Your task to perform on an android device: Search for pizza restaurants on Maps Image 0: 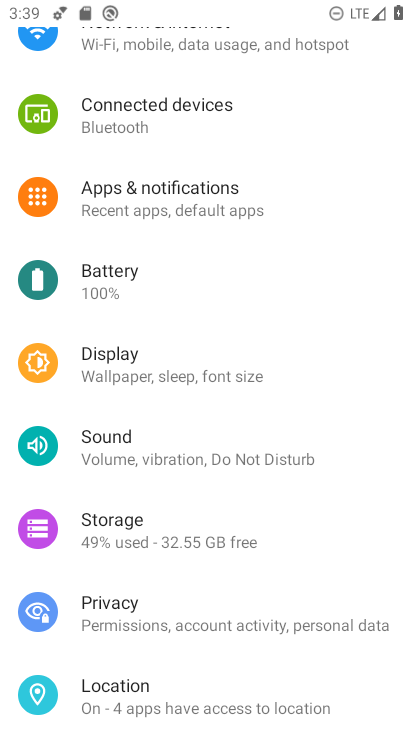
Step 0: press home button
Your task to perform on an android device: Search for pizza restaurants on Maps Image 1: 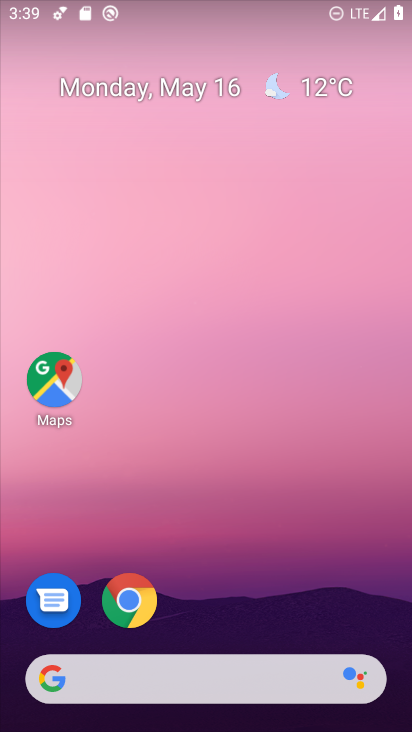
Step 1: click (60, 382)
Your task to perform on an android device: Search for pizza restaurants on Maps Image 2: 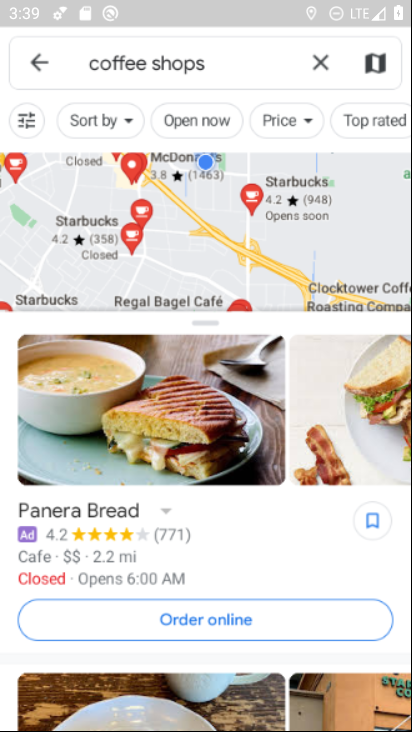
Step 2: click (261, 42)
Your task to perform on an android device: Search for pizza restaurants on Maps Image 3: 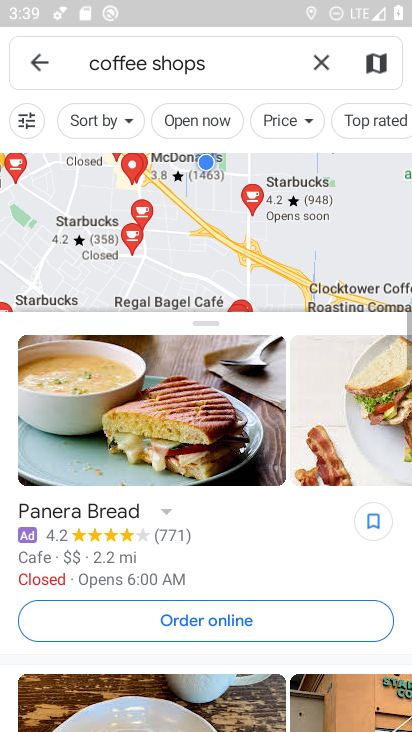
Step 3: click (327, 53)
Your task to perform on an android device: Search for pizza restaurants on Maps Image 4: 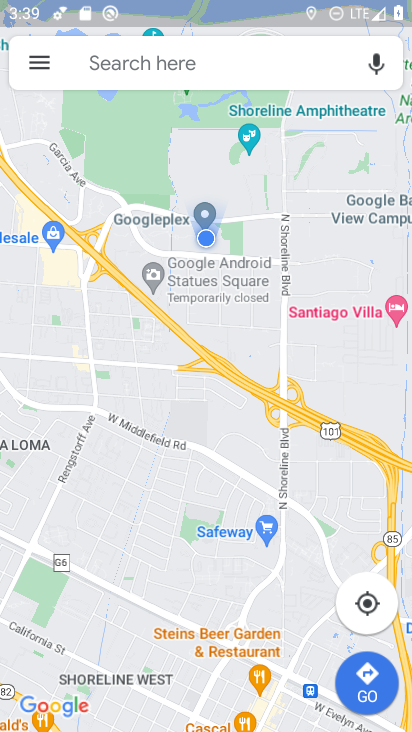
Step 4: click (238, 58)
Your task to perform on an android device: Search for pizza restaurants on Maps Image 5: 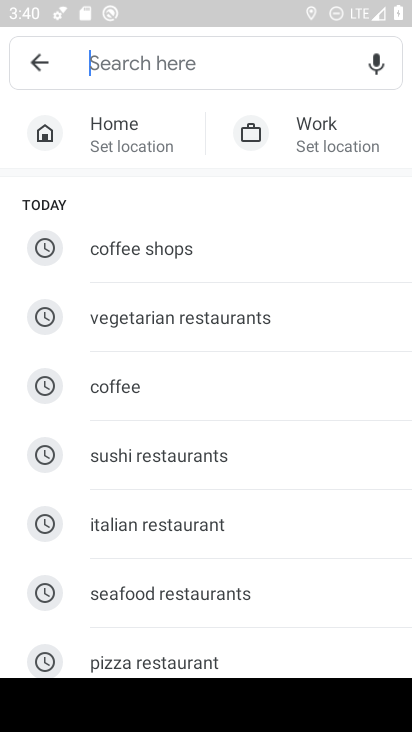
Step 5: type "pizza restaurants"
Your task to perform on an android device: Search for pizza restaurants on Maps Image 6: 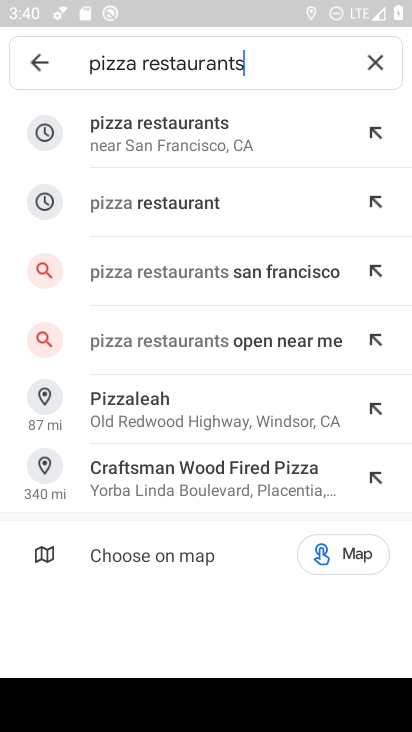
Step 6: press enter
Your task to perform on an android device: Search for pizza restaurants on Maps Image 7: 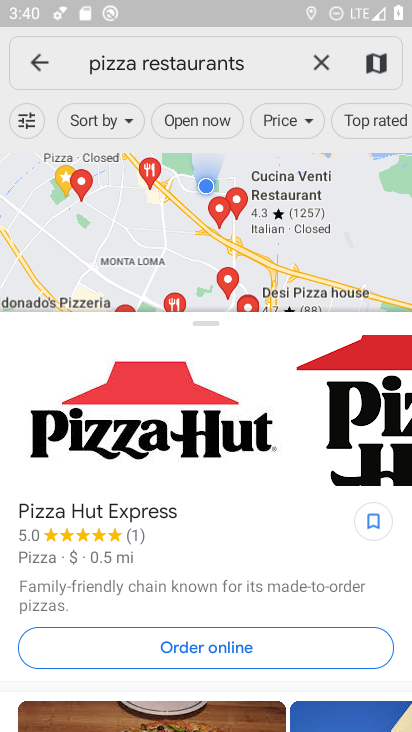
Step 7: task complete